Your task to perform on an android device: Go to CNN.com Image 0: 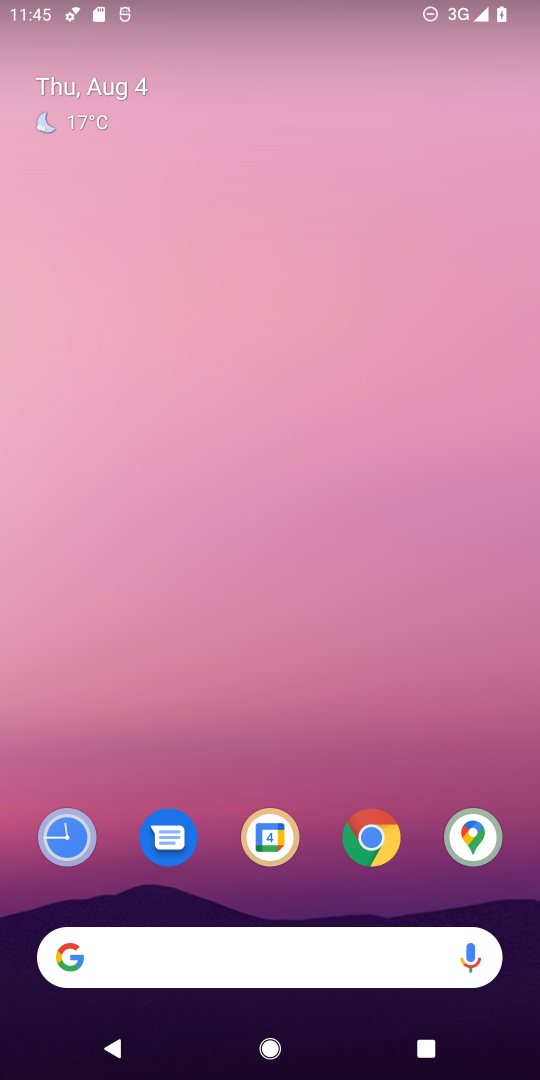
Step 0: click (96, 6)
Your task to perform on an android device: Go to CNN.com Image 1: 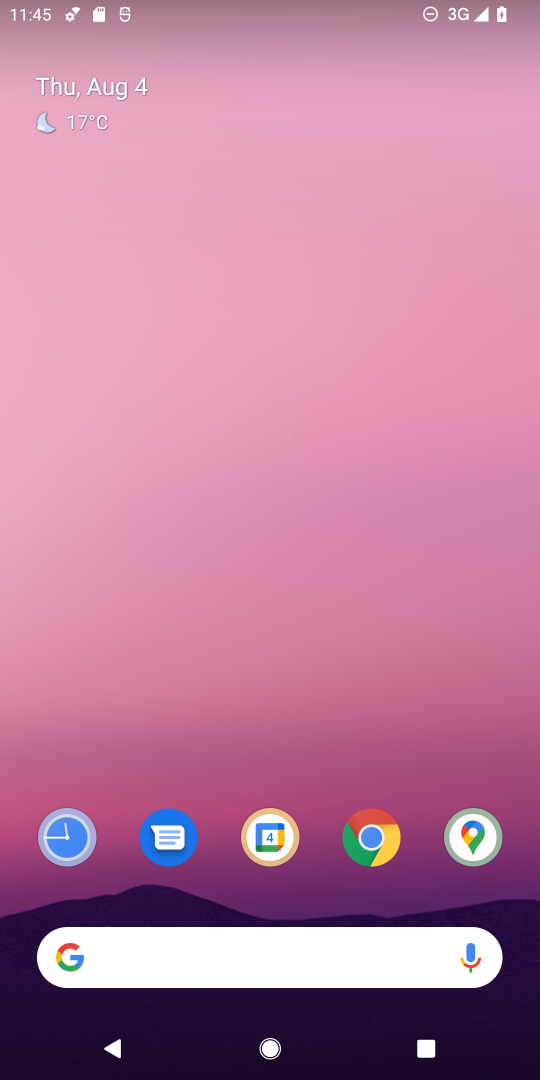
Step 1: drag from (468, 892) to (154, 38)
Your task to perform on an android device: Go to CNN.com Image 2: 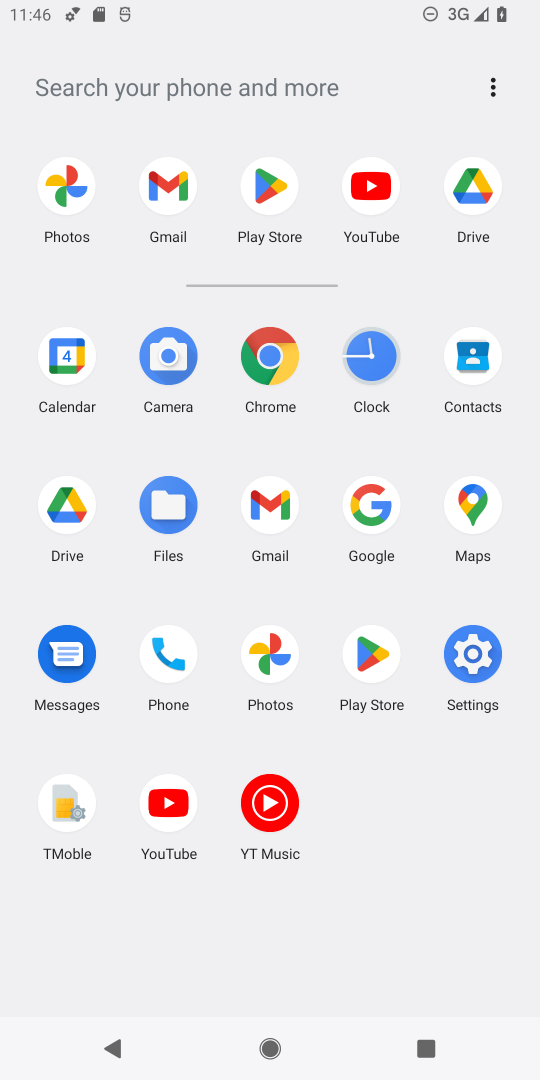
Step 2: click (374, 498)
Your task to perform on an android device: Go to CNN.com Image 3: 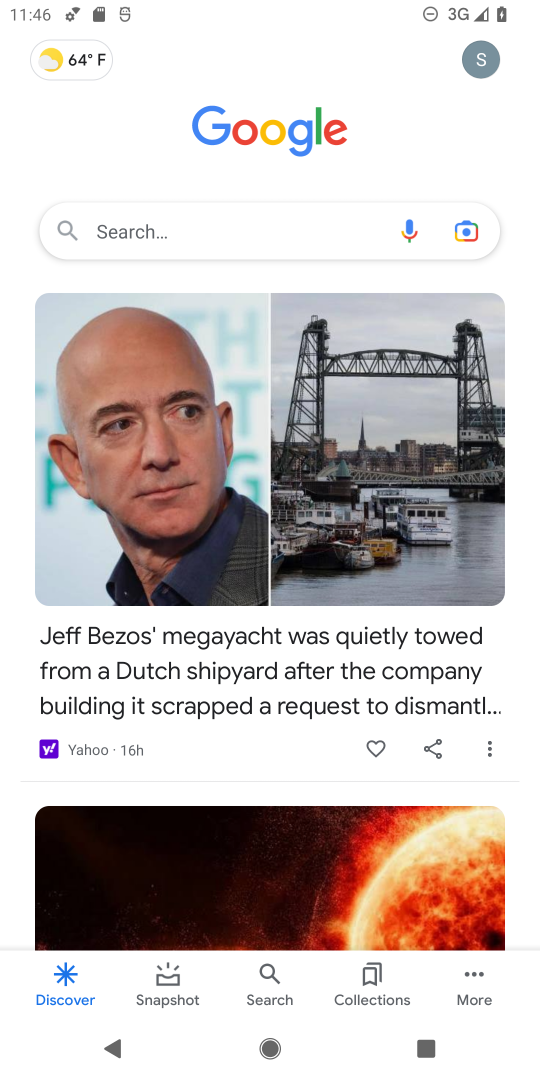
Step 3: click (161, 241)
Your task to perform on an android device: Go to CNN.com Image 4: 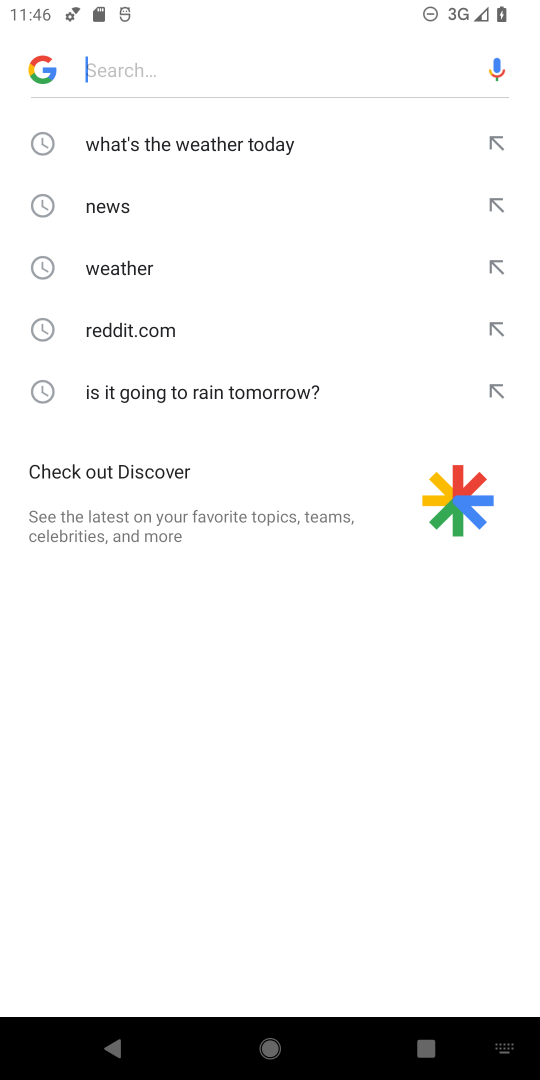
Step 4: type "CNN.com"
Your task to perform on an android device: Go to CNN.com Image 5: 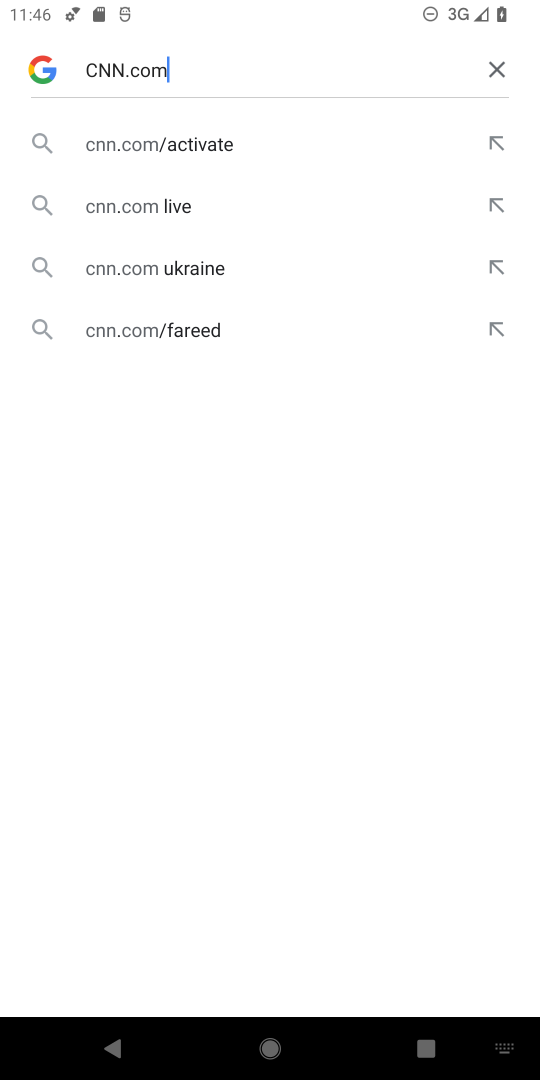
Step 5: task complete